Your task to perform on an android device: Go to Amazon Image 0: 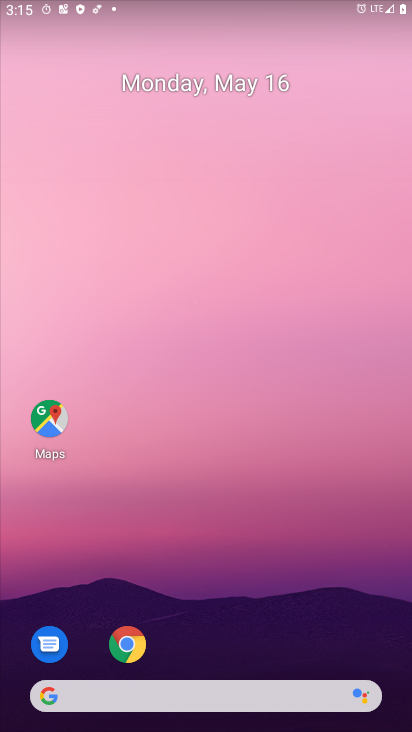
Step 0: drag from (268, 618) to (242, 180)
Your task to perform on an android device: Go to Amazon Image 1: 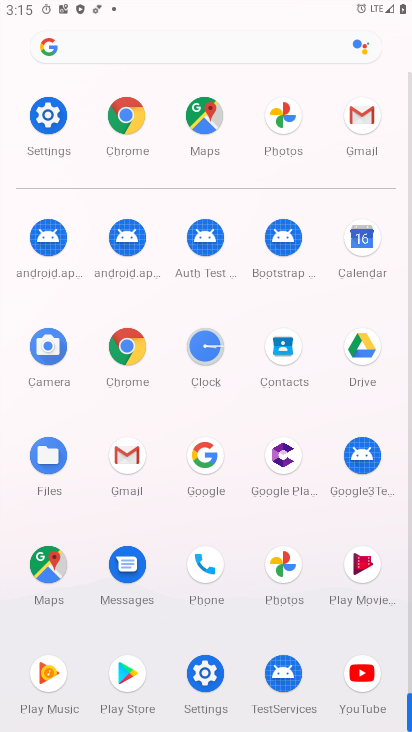
Step 1: click (142, 157)
Your task to perform on an android device: Go to Amazon Image 2: 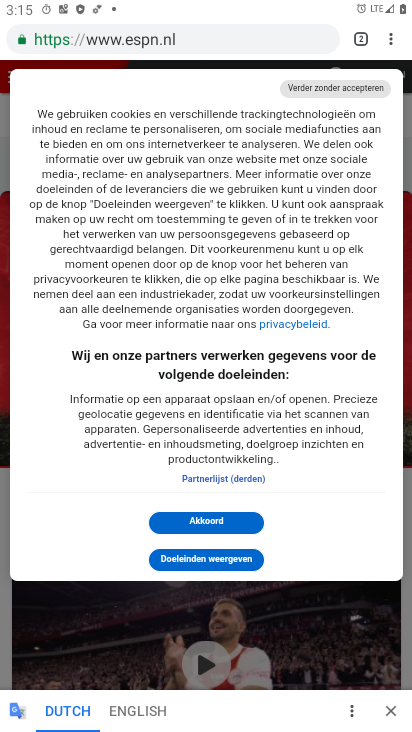
Step 2: drag from (269, 33) to (251, 147)
Your task to perform on an android device: Go to Amazon Image 3: 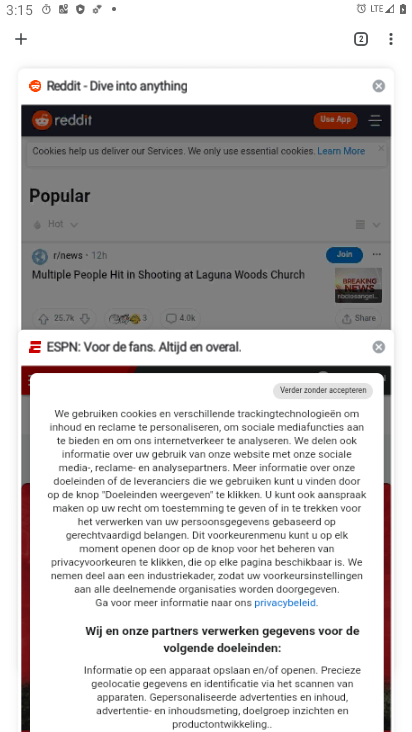
Step 3: click (28, 29)
Your task to perform on an android device: Go to Amazon Image 4: 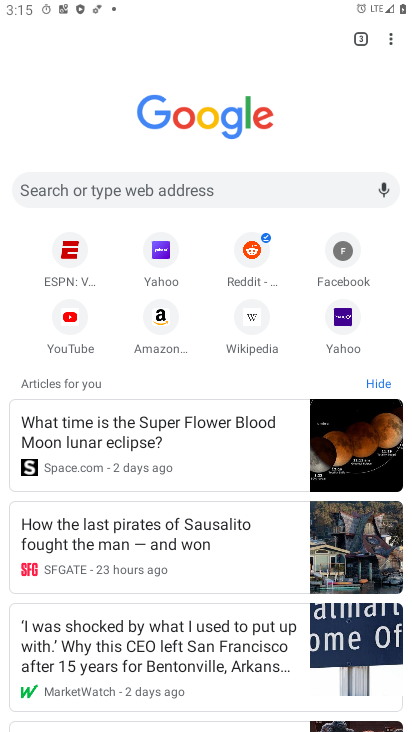
Step 4: click (157, 335)
Your task to perform on an android device: Go to Amazon Image 5: 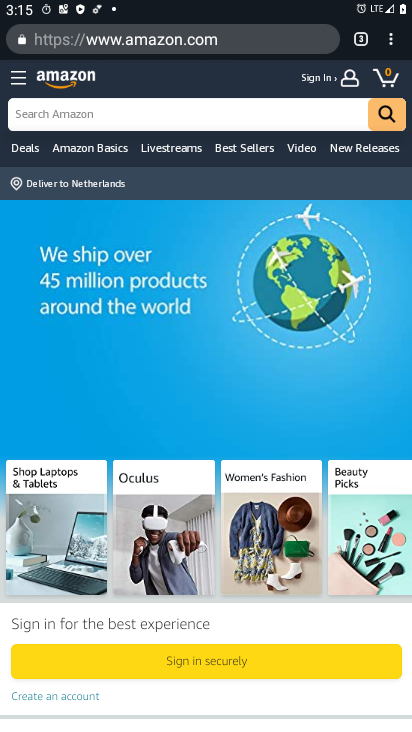
Step 5: task complete